Your task to perform on an android device: install app "Roku - Official Remote Control" Image 0: 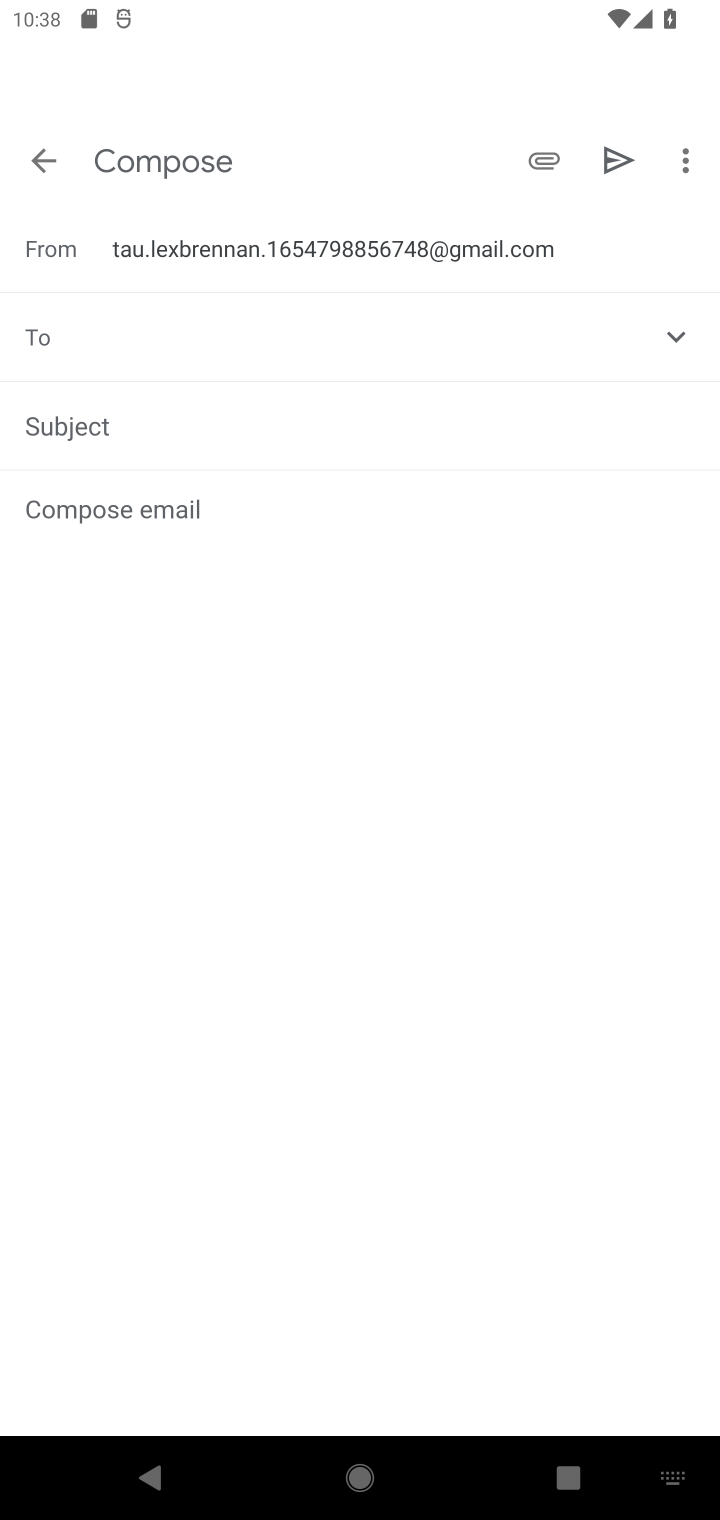
Step 0: press home button
Your task to perform on an android device: install app "Roku - Official Remote Control" Image 1: 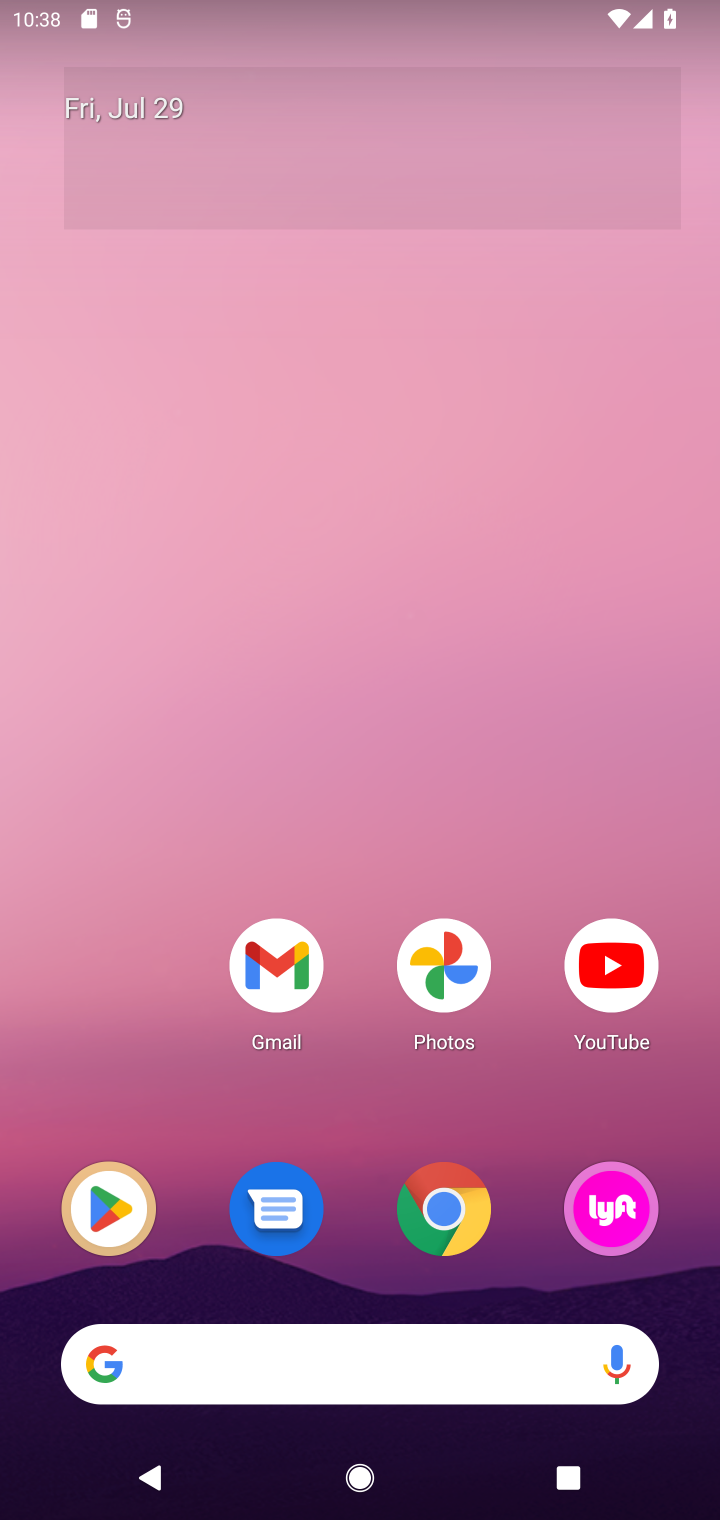
Step 1: drag from (526, 1102) to (523, 270)
Your task to perform on an android device: install app "Roku - Official Remote Control" Image 2: 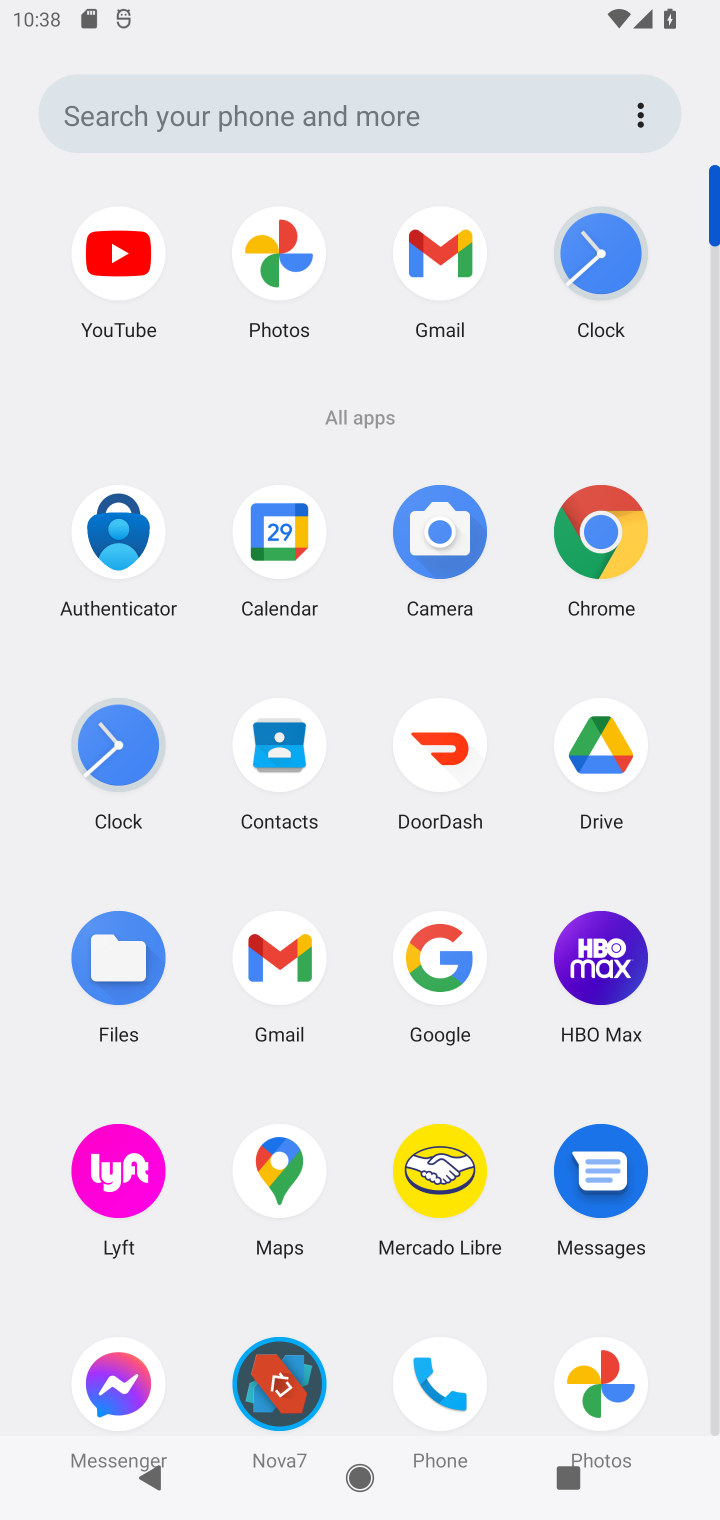
Step 2: drag from (353, 1074) to (391, 510)
Your task to perform on an android device: install app "Roku - Official Remote Control" Image 3: 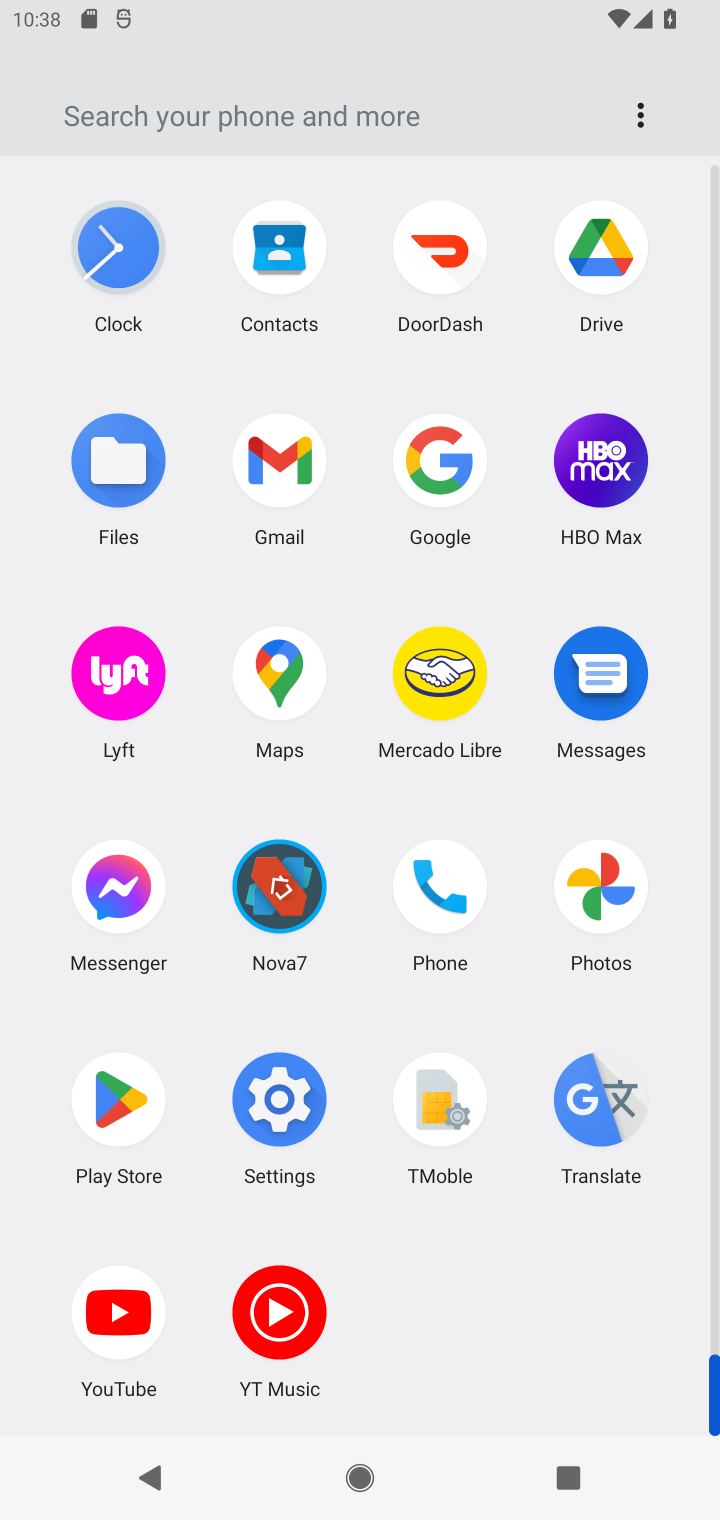
Step 3: click (124, 1078)
Your task to perform on an android device: install app "Roku - Official Remote Control" Image 4: 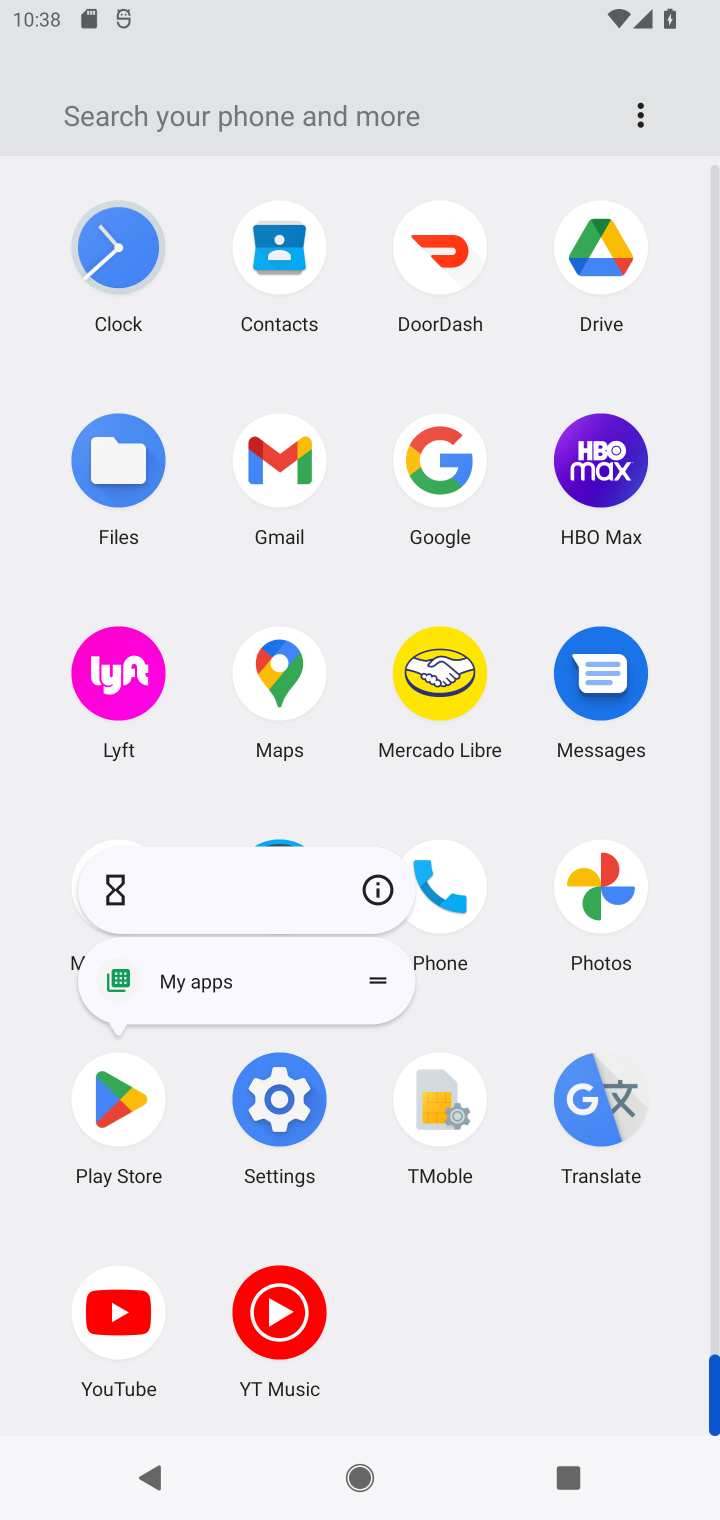
Step 4: click (109, 1080)
Your task to perform on an android device: install app "Roku - Official Remote Control" Image 5: 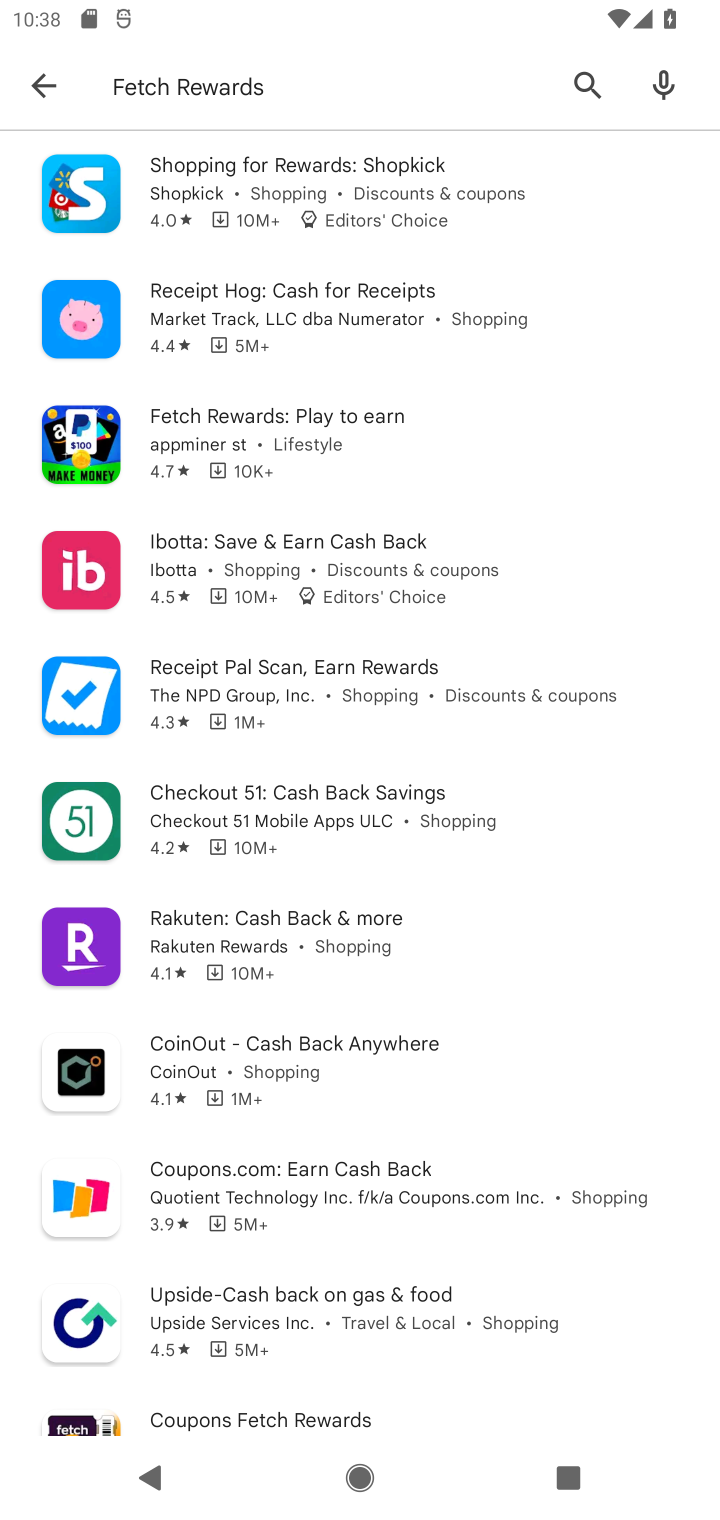
Step 5: click (378, 75)
Your task to perform on an android device: install app "Roku - Official Remote Control" Image 6: 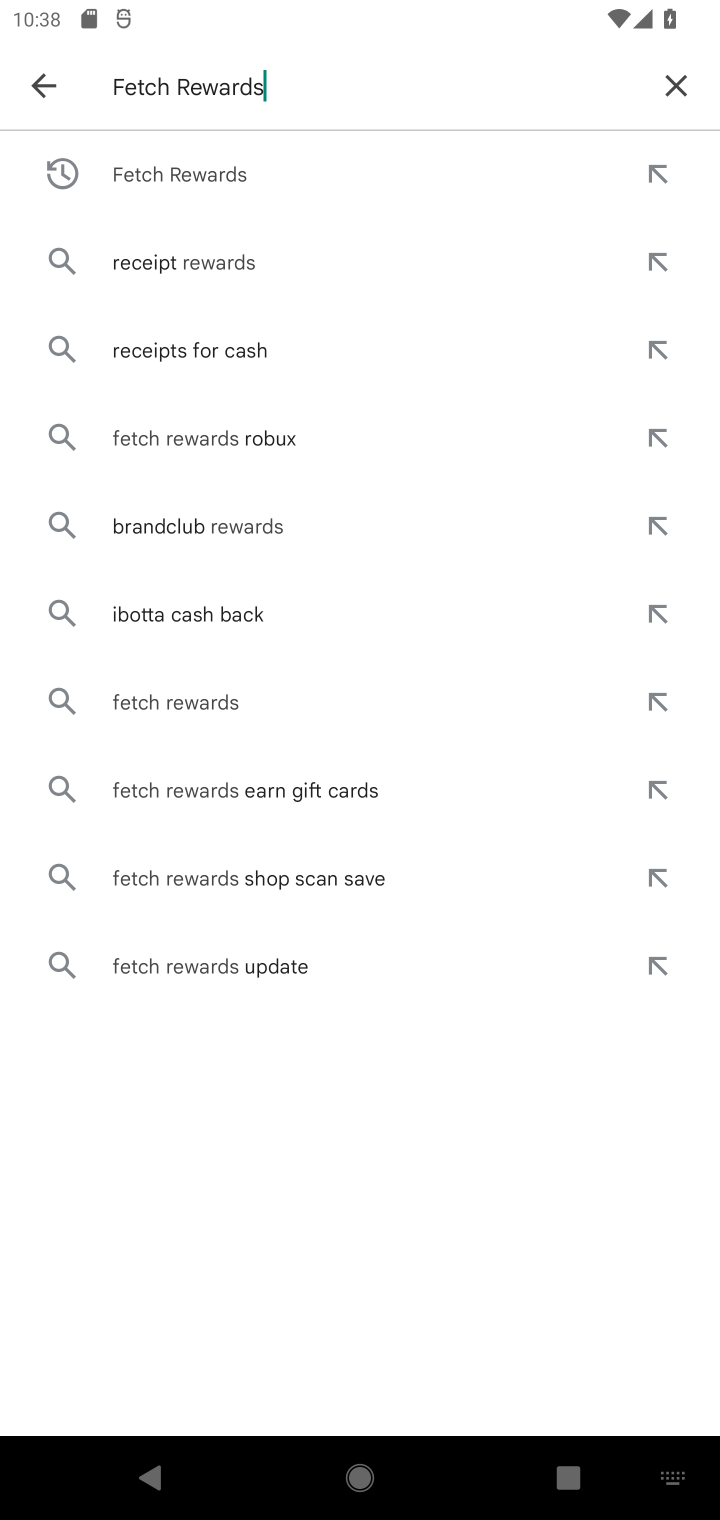
Step 6: click (676, 88)
Your task to perform on an android device: install app "Roku - Official Remote Control" Image 7: 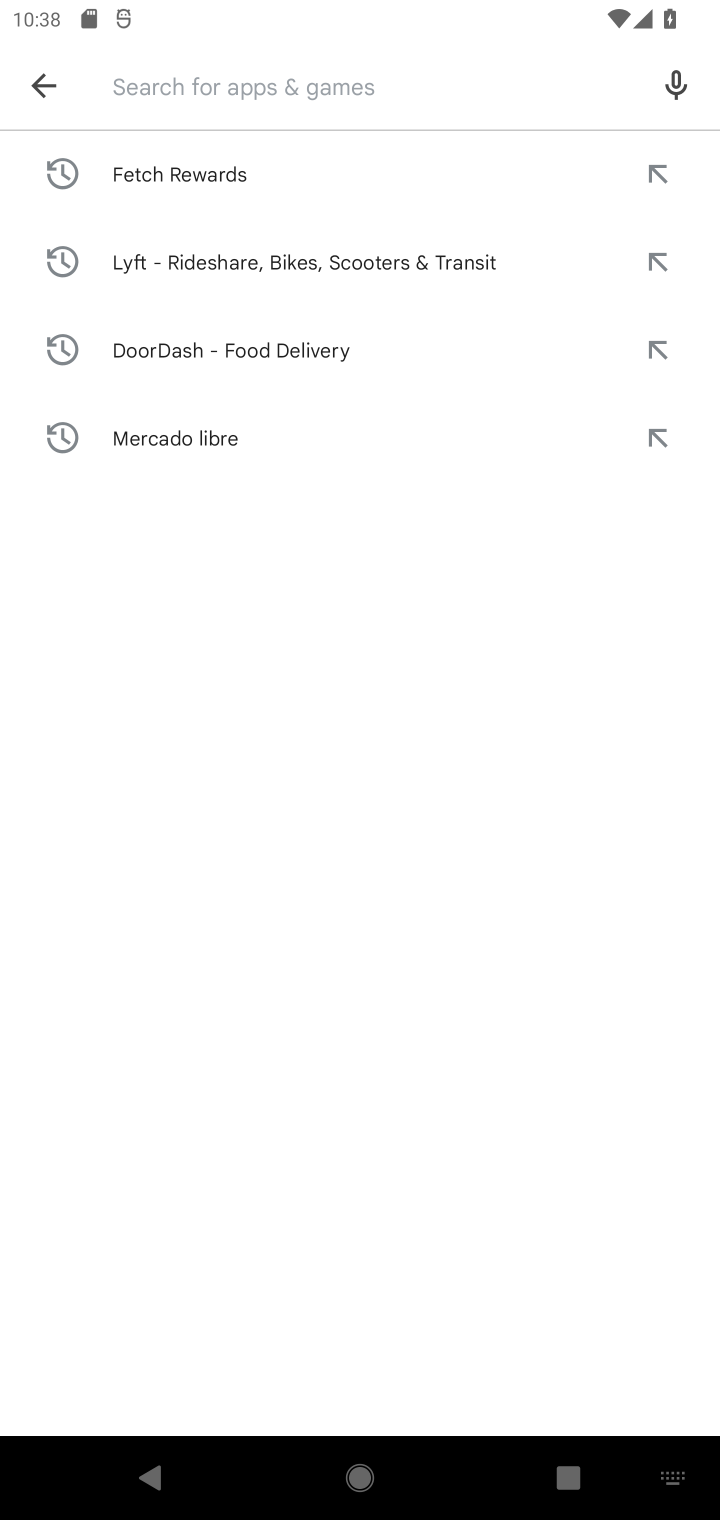
Step 7: type "Roku - Official Remote Cotrol"
Your task to perform on an android device: install app "Roku - Official Remote Control" Image 8: 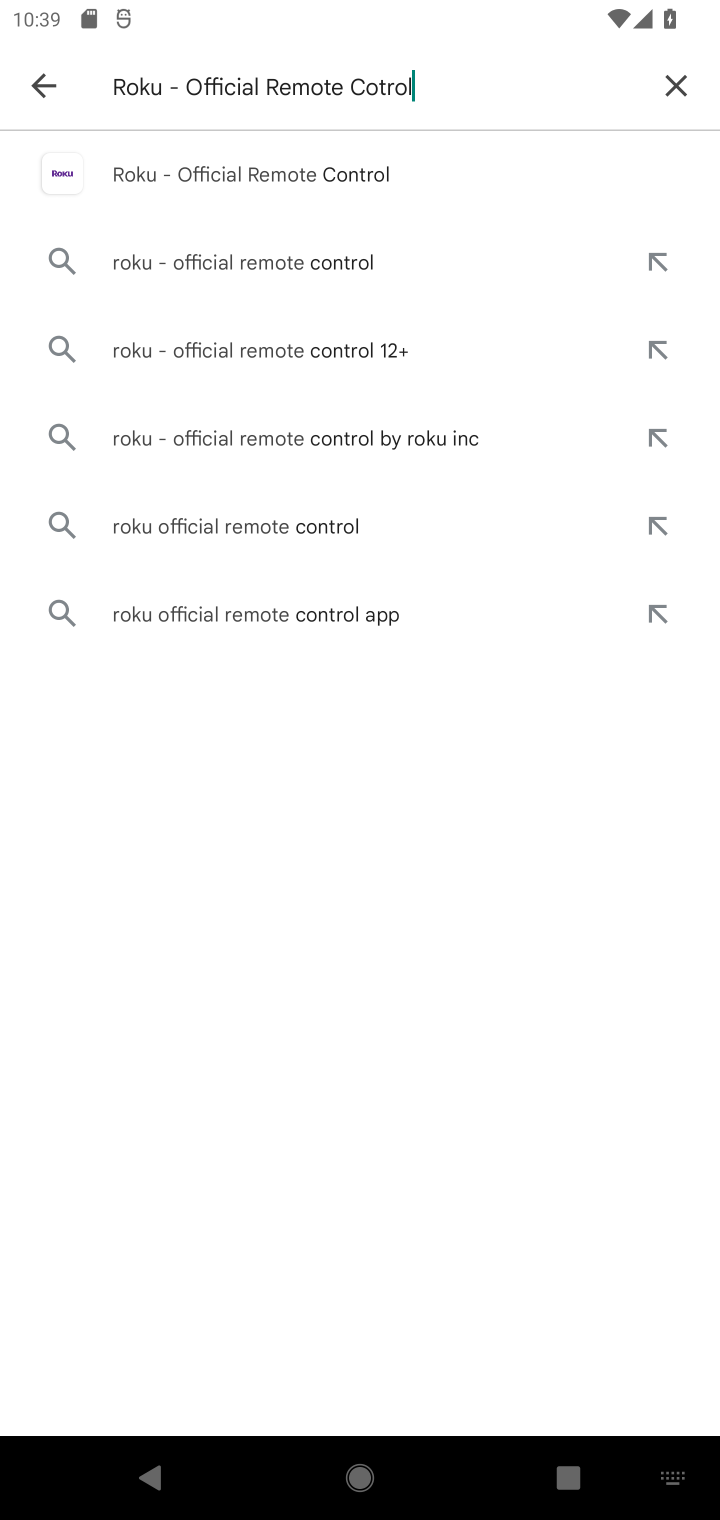
Step 8: press enter
Your task to perform on an android device: install app "Roku - Official Remote Control" Image 9: 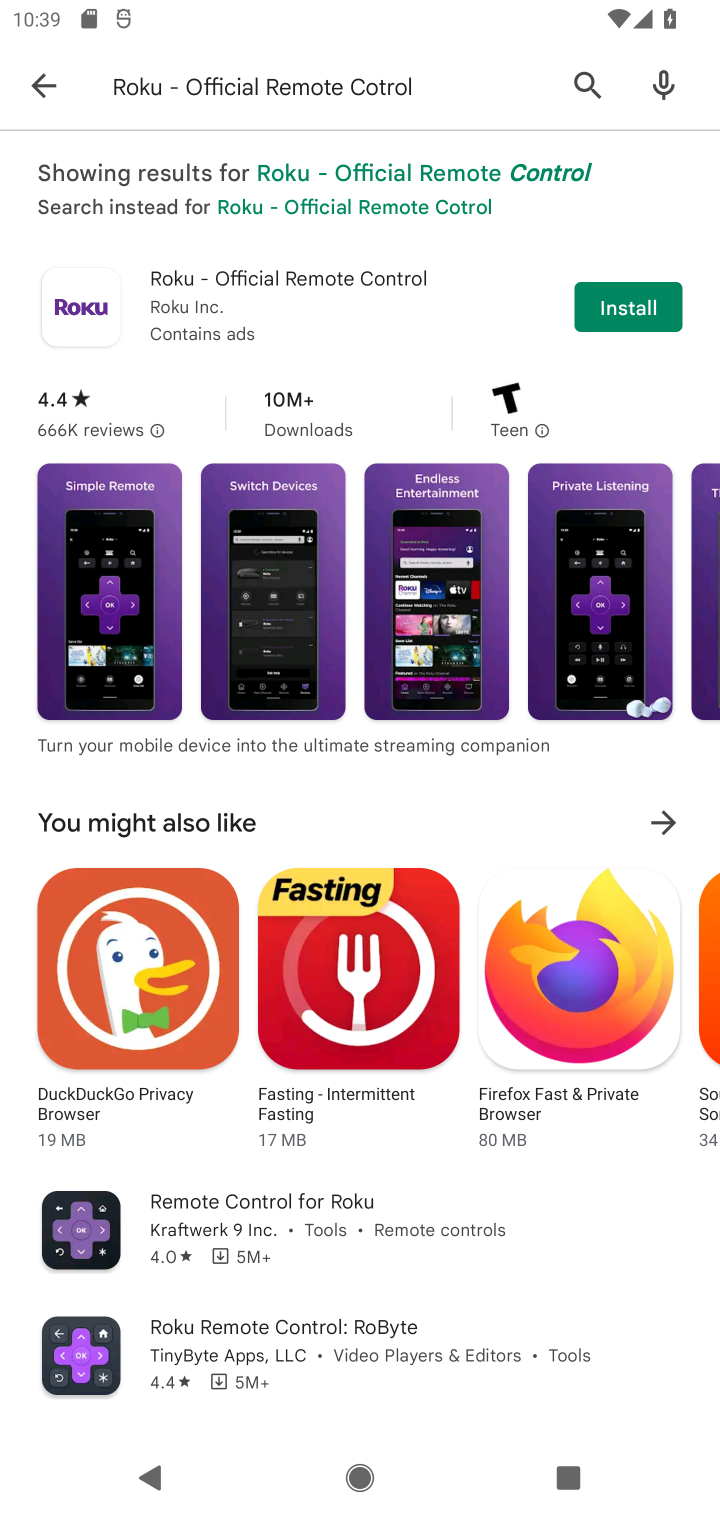
Step 9: click (337, 294)
Your task to perform on an android device: install app "Roku - Official Remote Control" Image 10: 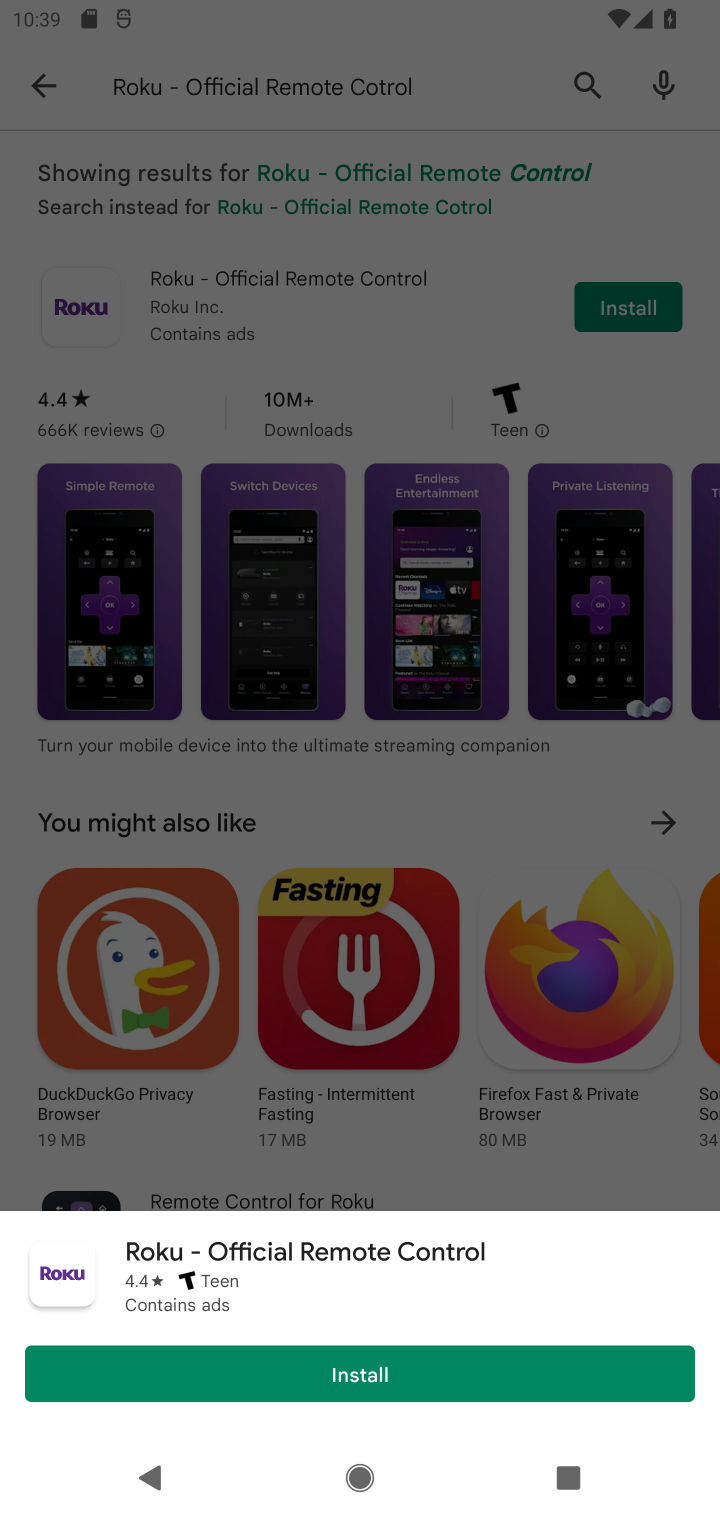
Step 10: click (263, 1355)
Your task to perform on an android device: install app "Roku - Official Remote Control" Image 11: 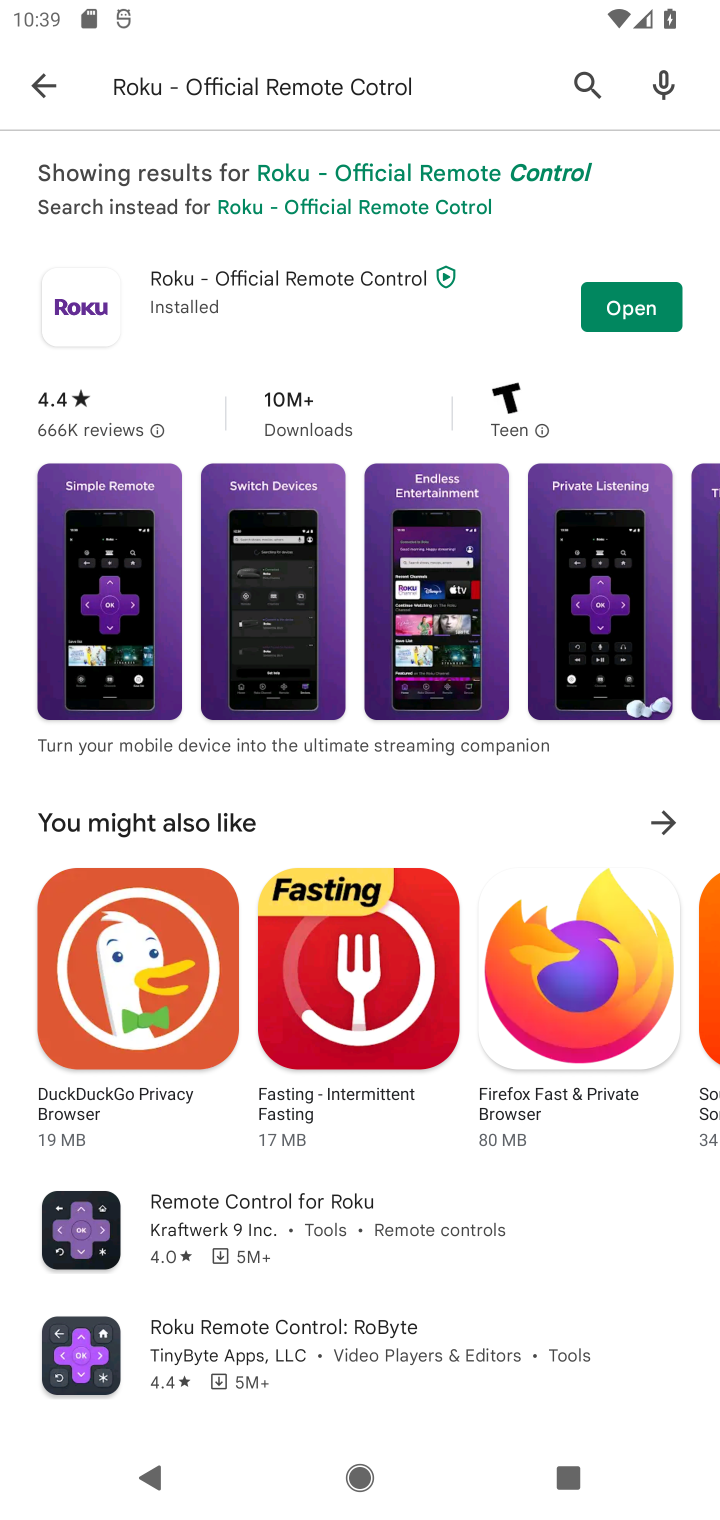
Step 11: task complete